Your task to perform on an android device: Open wifi settings Image 0: 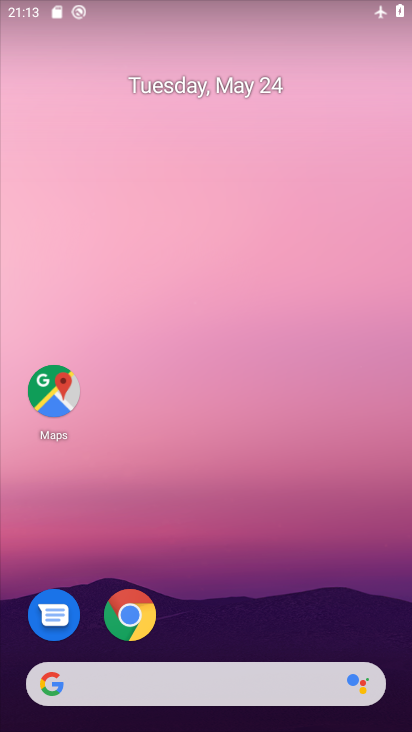
Step 0: drag from (201, 598) to (204, 336)
Your task to perform on an android device: Open wifi settings Image 1: 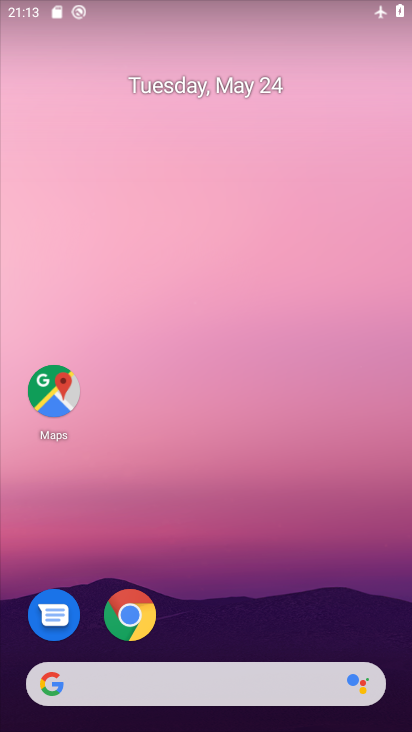
Step 1: drag from (249, 581) to (250, 349)
Your task to perform on an android device: Open wifi settings Image 2: 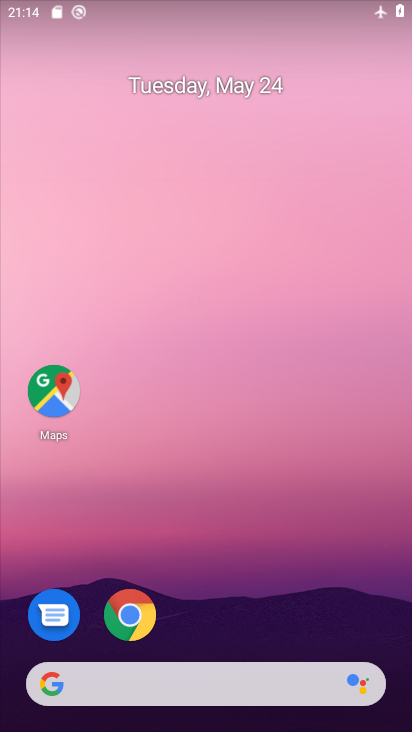
Step 2: drag from (222, 614) to (240, 298)
Your task to perform on an android device: Open wifi settings Image 3: 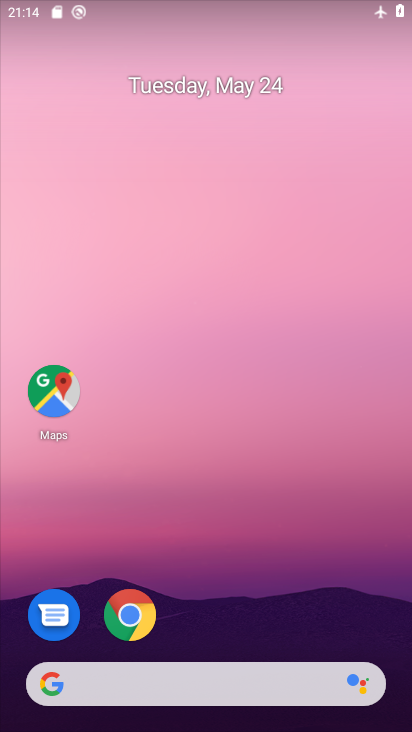
Step 3: drag from (193, 624) to (217, 376)
Your task to perform on an android device: Open wifi settings Image 4: 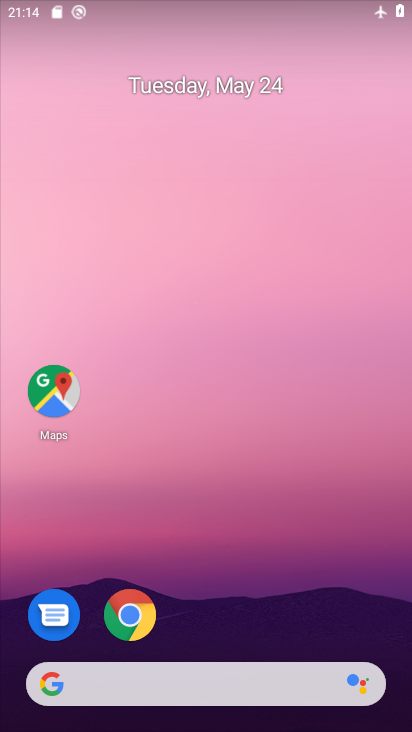
Step 4: drag from (233, 644) to (307, 274)
Your task to perform on an android device: Open wifi settings Image 5: 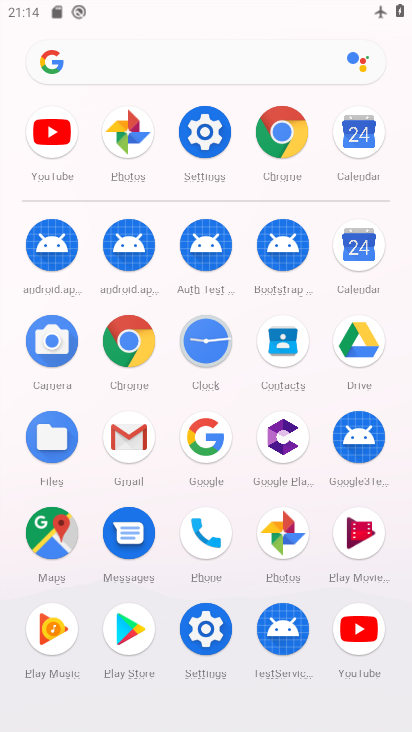
Step 5: click (195, 136)
Your task to perform on an android device: Open wifi settings Image 6: 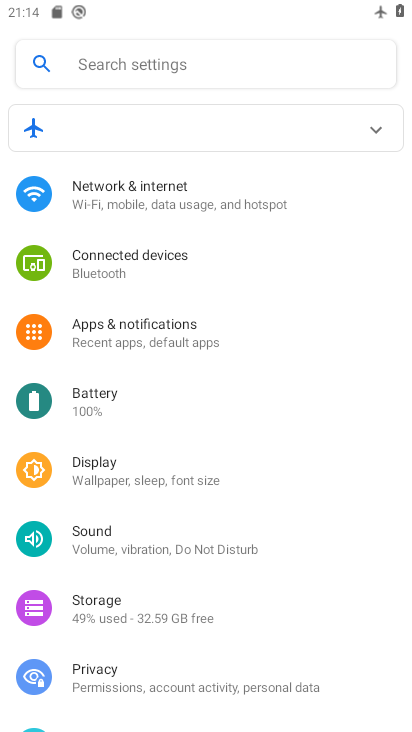
Step 6: click (199, 181)
Your task to perform on an android device: Open wifi settings Image 7: 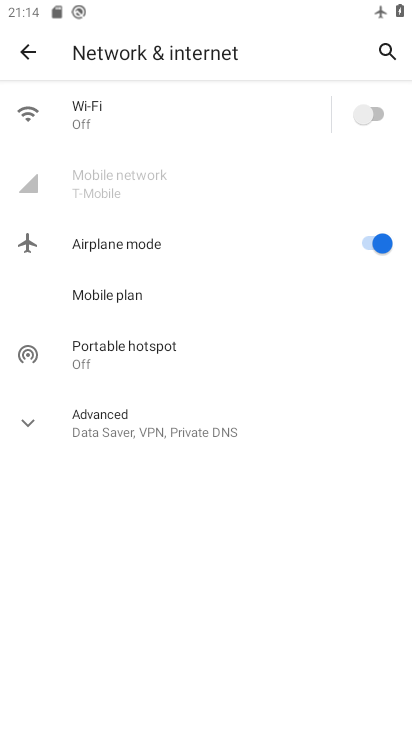
Step 7: task complete